Your task to perform on an android device: Open Google Chrome Image 0: 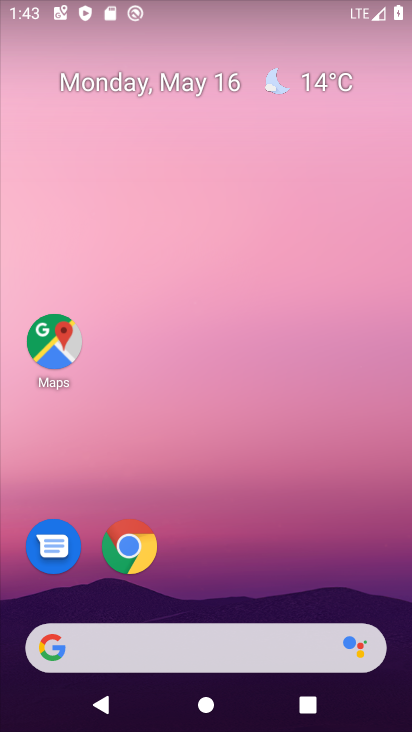
Step 0: drag from (247, 660) to (186, 39)
Your task to perform on an android device: Open Google Chrome Image 1: 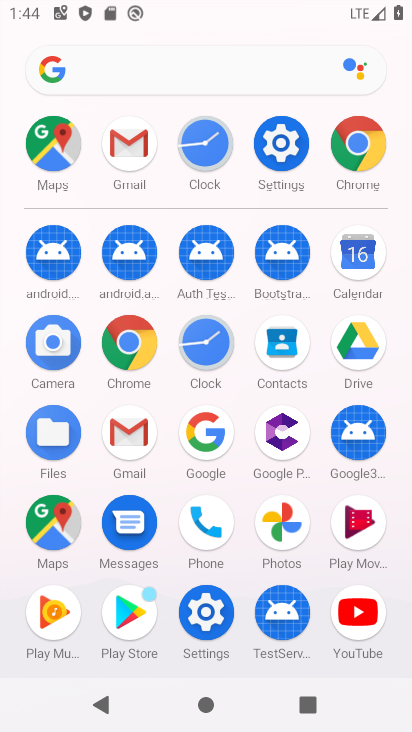
Step 1: click (342, 130)
Your task to perform on an android device: Open Google Chrome Image 2: 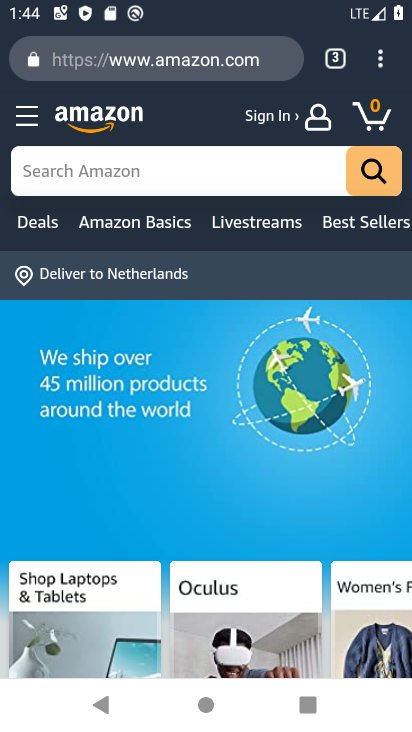
Step 2: click (336, 51)
Your task to perform on an android device: Open Google Chrome Image 3: 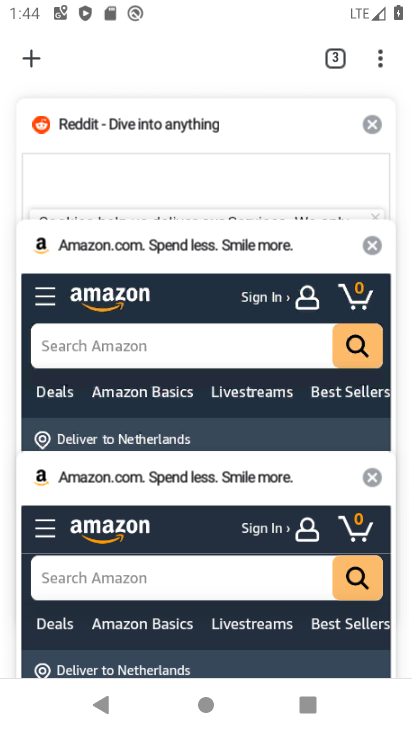
Step 3: click (36, 66)
Your task to perform on an android device: Open Google Chrome Image 4: 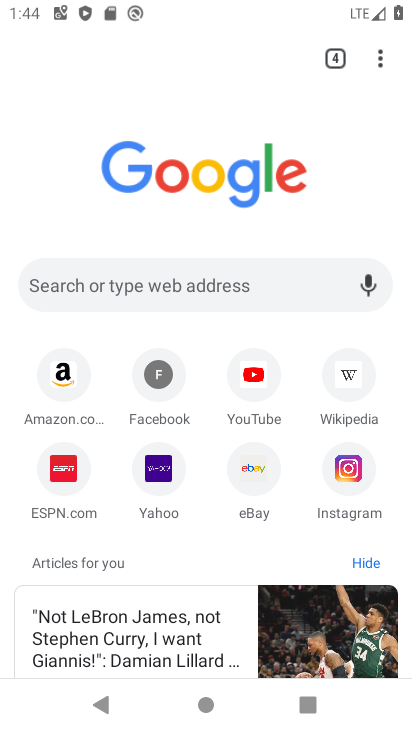
Step 4: task complete